Your task to perform on an android device: Open Google Maps and go to "Timeline" Image 0: 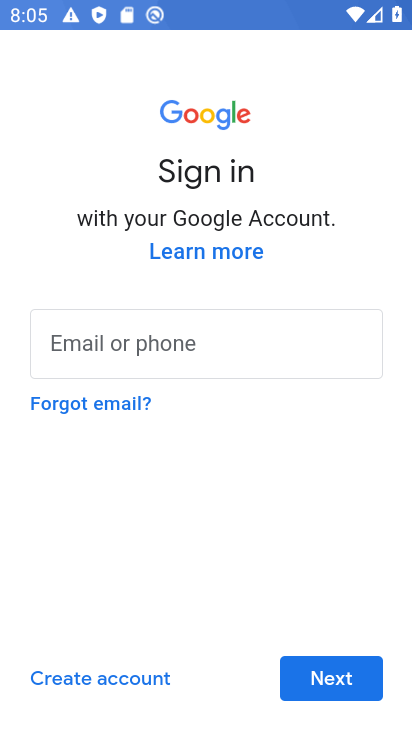
Step 0: press back button
Your task to perform on an android device: Open Google Maps and go to "Timeline" Image 1: 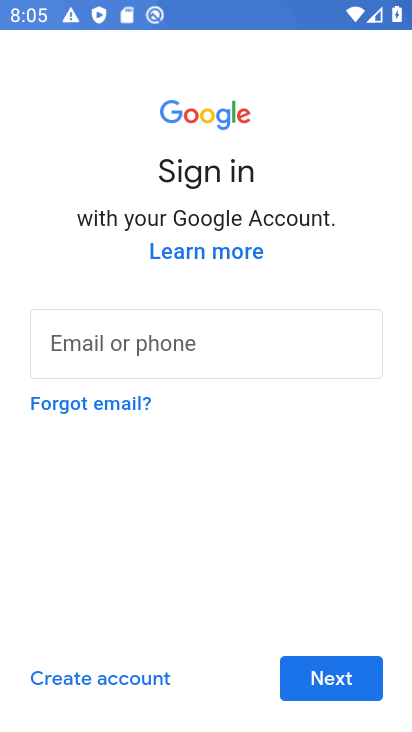
Step 1: press back button
Your task to perform on an android device: Open Google Maps and go to "Timeline" Image 2: 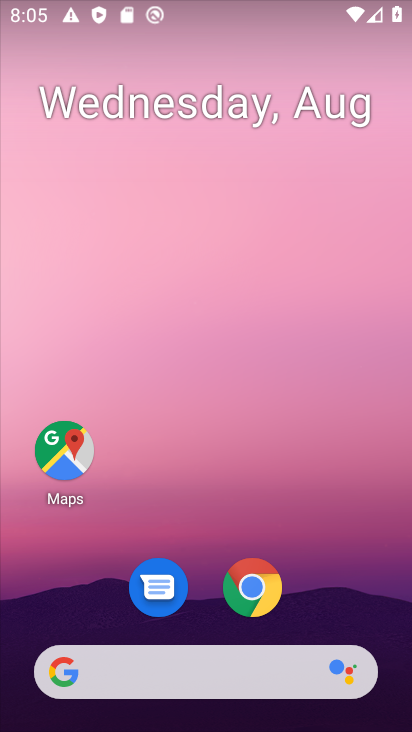
Step 2: drag from (327, 537) to (232, 19)
Your task to perform on an android device: Open Google Maps and go to "Timeline" Image 3: 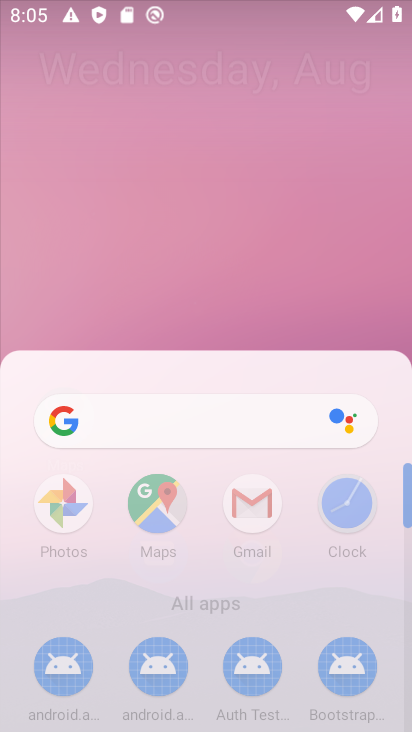
Step 3: drag from (200, 367) to (173, 185)
Your task to perform on an android device: Open Google Maps and go to "Timeline" Image 4: 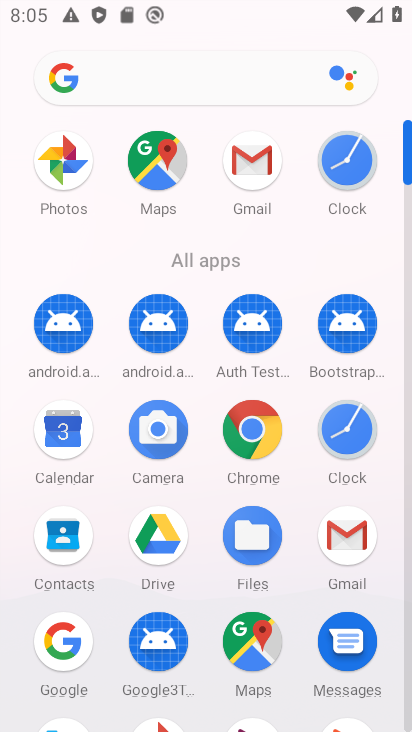
Step 4: drag from (225, 602) to (183, 434)
Your task to perform on an android device: Open Google Maps and go to "Timeline" Image 5: 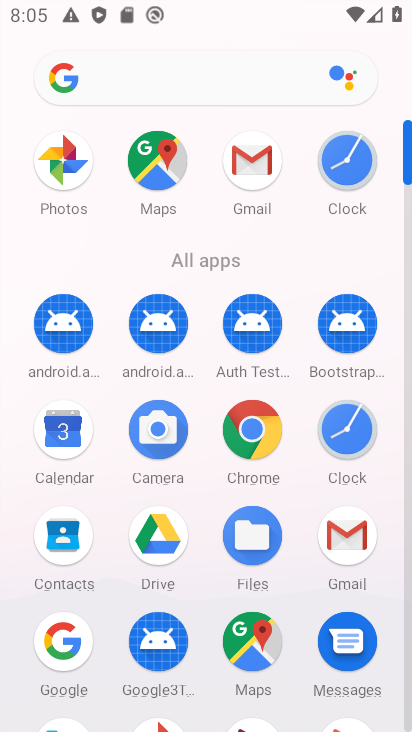
Step 5: click (158, 161)
Your task to perform on an android device: Open Google Maps and go to "Timeline" Image 6: 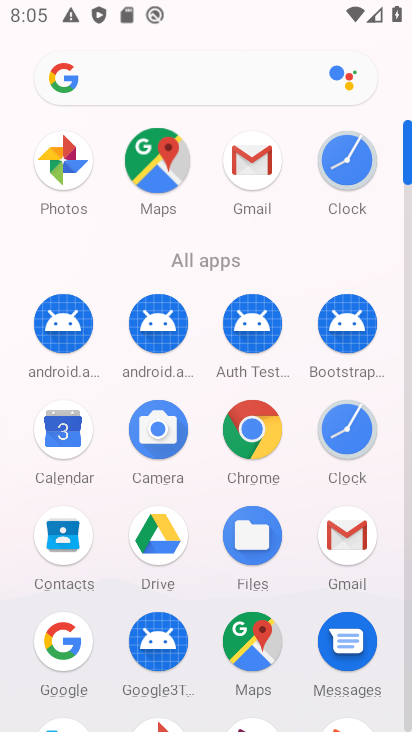
Step 6: click (158, 161)
Your task to perform on an android device: Open Google Maps and go to "Timeline" Image 7: 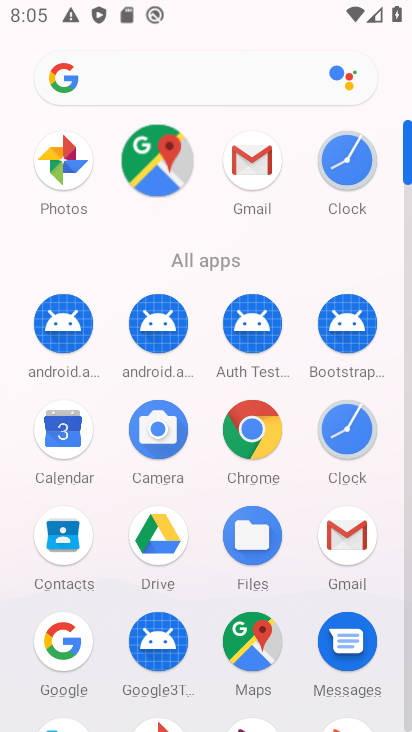
Step 7: click (156, 162)
Your task to perform on an android device: Open Google Maps and go to "Timeline" Image 8: 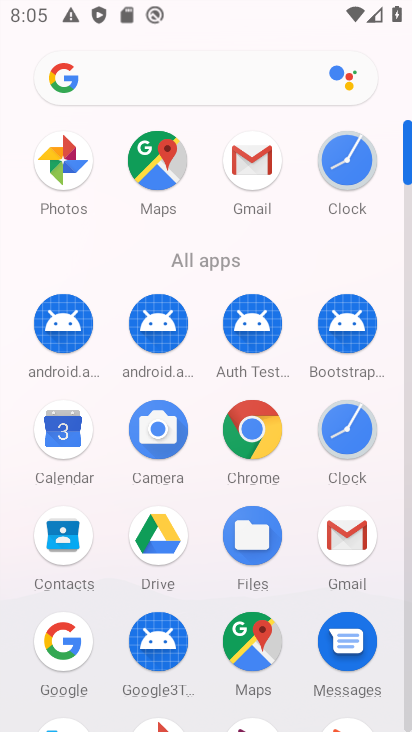
Step 8: click (156, 162)
Your task to perform on an android device: Open Google Maps and go to "Timeline" Image 9: 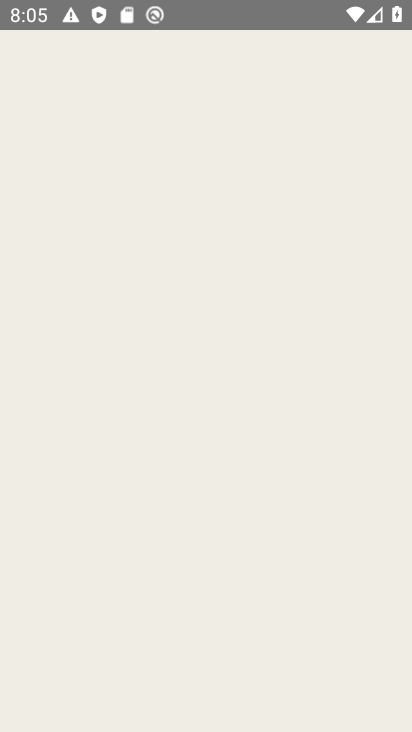
Step 9: click (208, 336)
Your task to perform on an android device: Open Google Maps and go to "Timeline" Image 10: 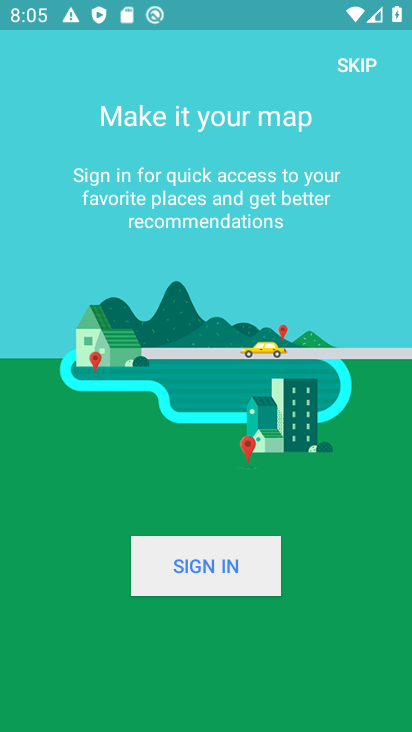
Step 10: click (334, 69)
Your task to perform on an android device: Open Google Maps and go to "Timeline" Image 11: 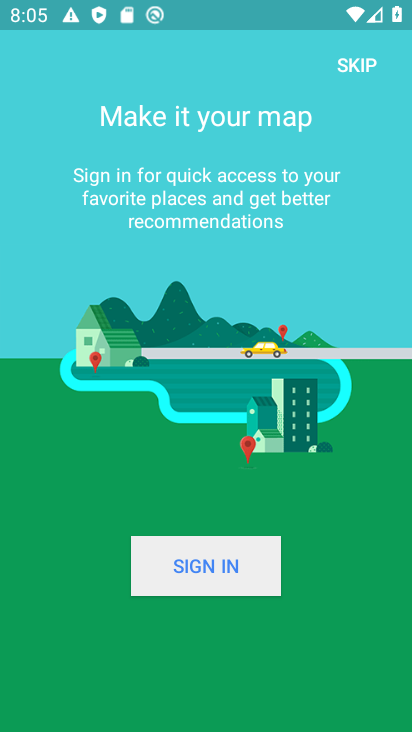
Step 11: click (345, 68)
Your task to perform on an android device: Open Google Maps and go to "Timeline" Image 12: 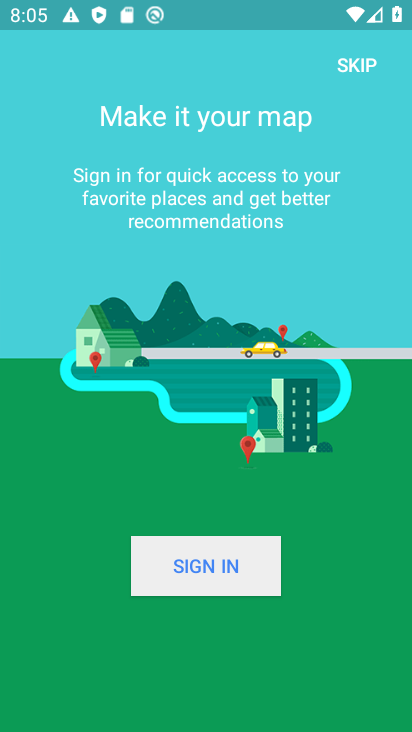
Step 12: click (345, 68)
Your task to perform on an android device: Open Google Maps and go to "Timeline" Image 13: 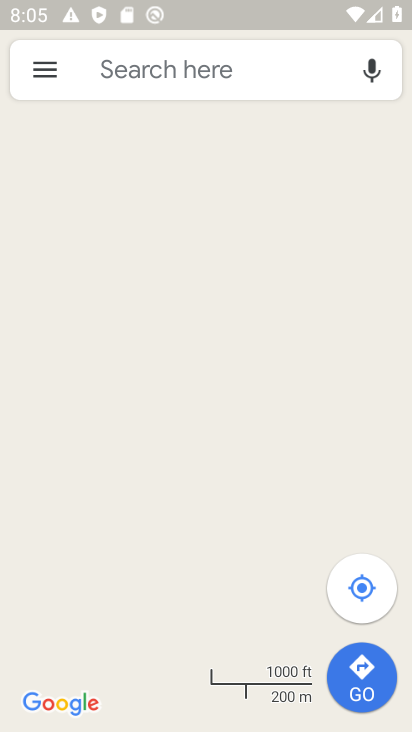
Step 13: click (345, 68)
Your task to perform on an android device: Open Google Maps and go to "Timeline" Image 14: 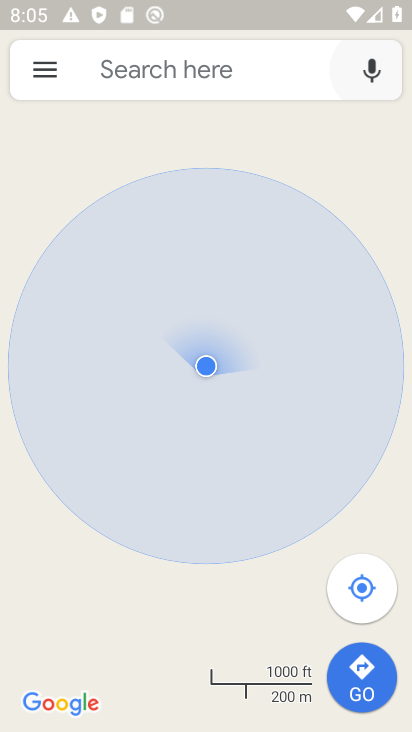
Step 14: click (41, 69)
Your task to perform on an android device: Open Google Maps and go to "Timeline" Image 15: 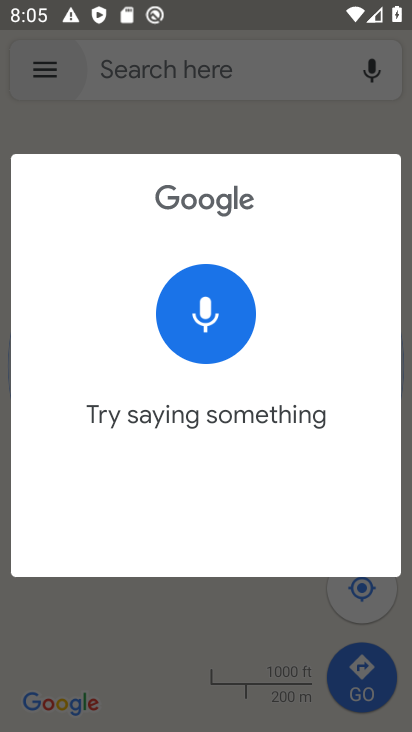
Step 15: click (42, 73)
Your task to perform on an android device: Open Google Maps and go to "Timeline" Image 16: 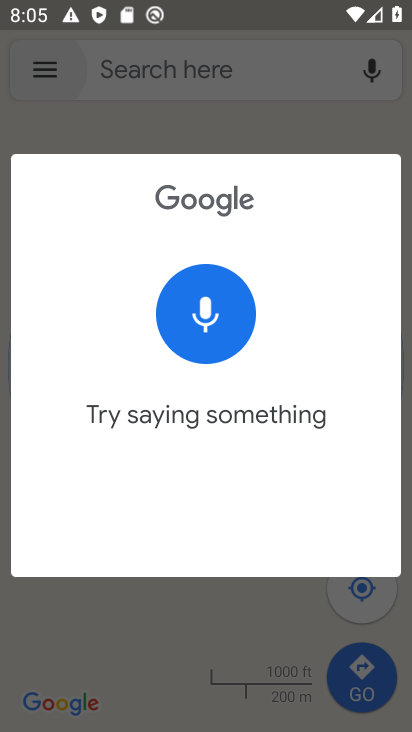
Step 16: click (43, 75)
Your task to perform on an android device: Open Google Maps and go to "Timeline" Image 17: 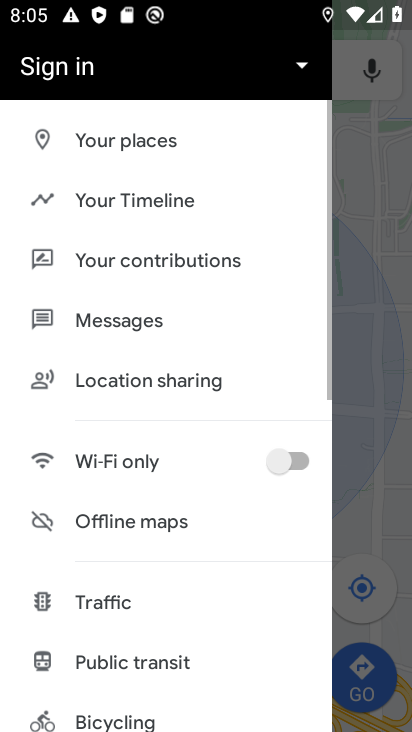
Step 17: click (150, 201)
Your task to perform on an android device: Open Google Maps and go to "Timeline" Image 18: 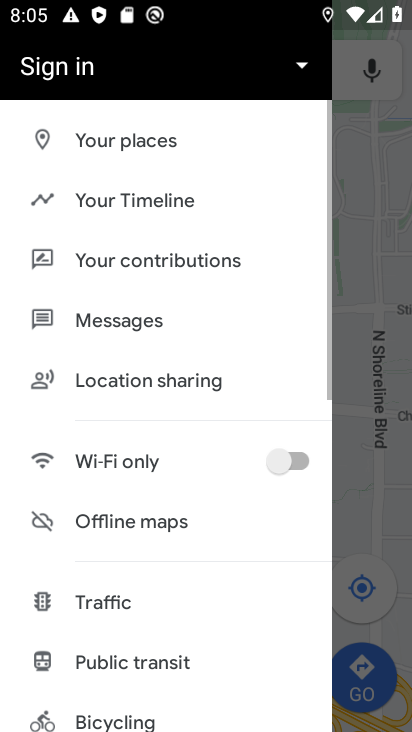
Step 18: click (149, 202)
Your task to perform on an android device: Open Google Maps and go to "Timeline" Image 19: 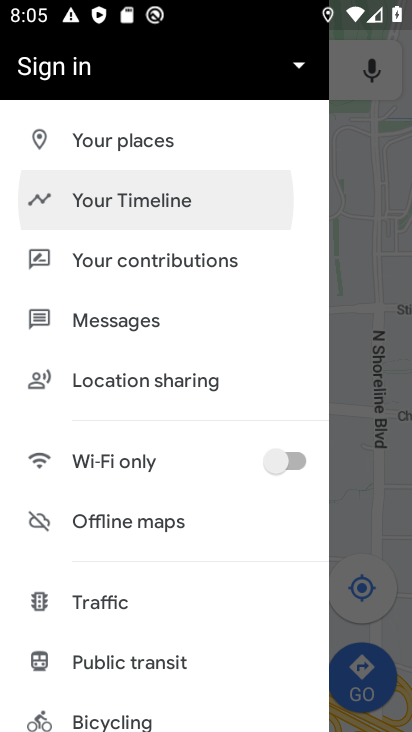
Step 19: click (149, 202)
Your task to perform on an android device: Open Google Maps and go to "Timeline" Image 20: 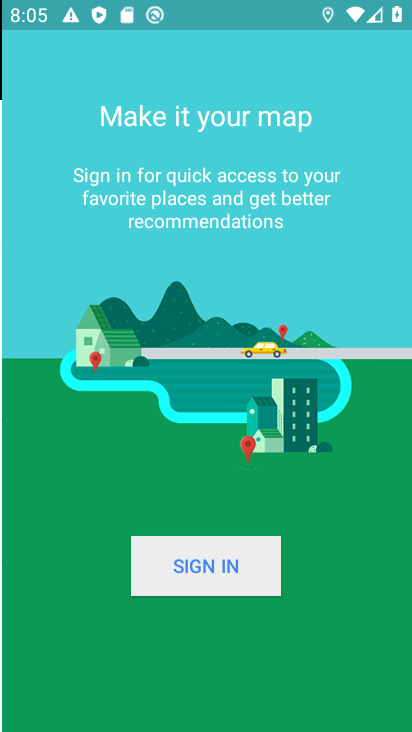
Step 20: click (149, 203)
Your task to perform on an android device: Open Google Maps and go to "Timeline" Image 21: 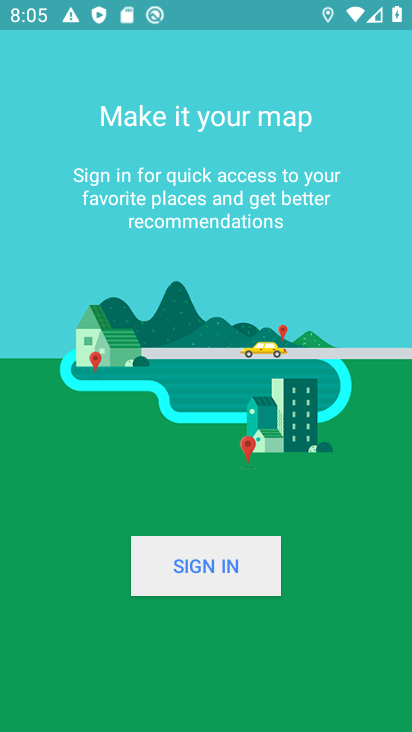
Step 21: click (379, 55)
Your task to perform on an android device: Open Google Maps and go to "Timeline" Image 22: 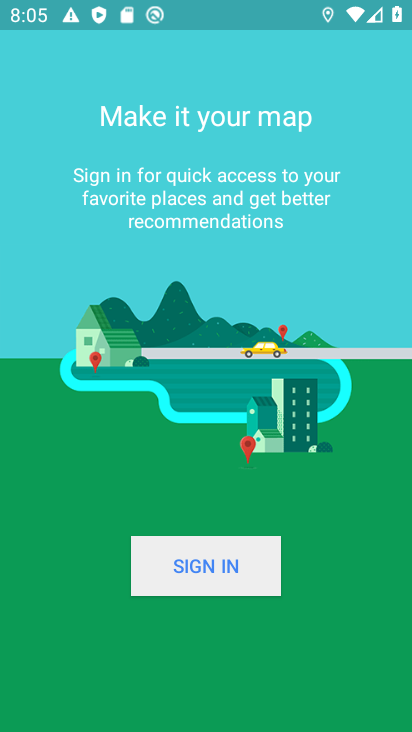
Step 22: click (379, 55)
Your task to perform on an android device: Open Google Maps and go to "Timeline" Image 23: 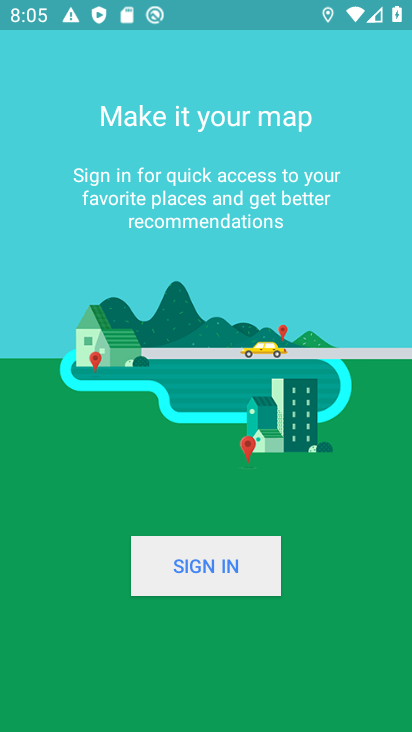
Step 23: click (379, 56)
Your task to perform on an android device: Open Google Maps and go to "Timeline" Image 24: 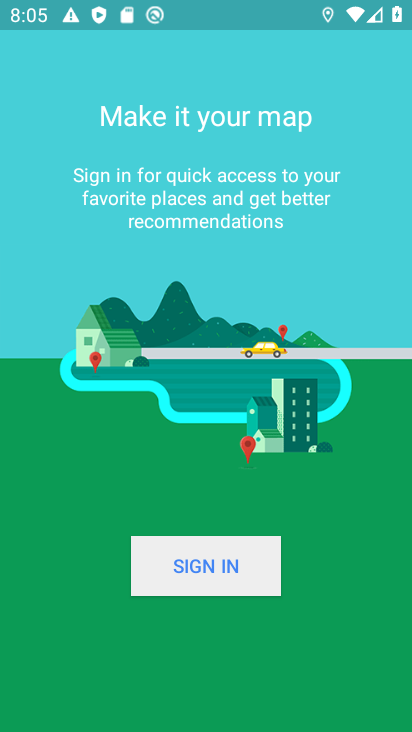
Step 24: click (379, 60)
Your task to perform on an android device: Open Google Maps and go to "Timeline" Image 25: 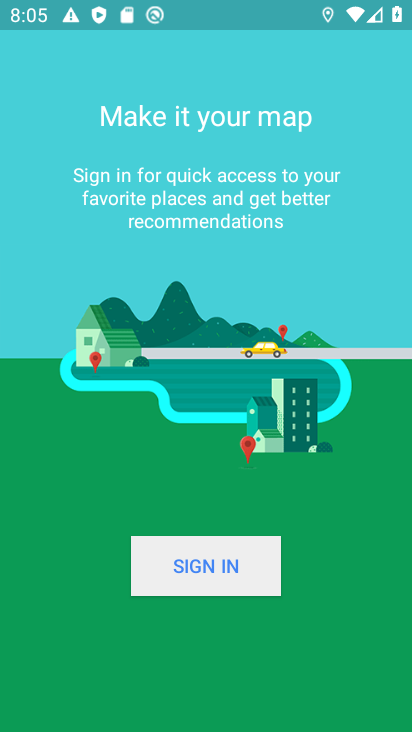
Step 25: click (379, 60)
Your task to perform on an android device: Open Google Maps and go to "Timeline" Image 26: 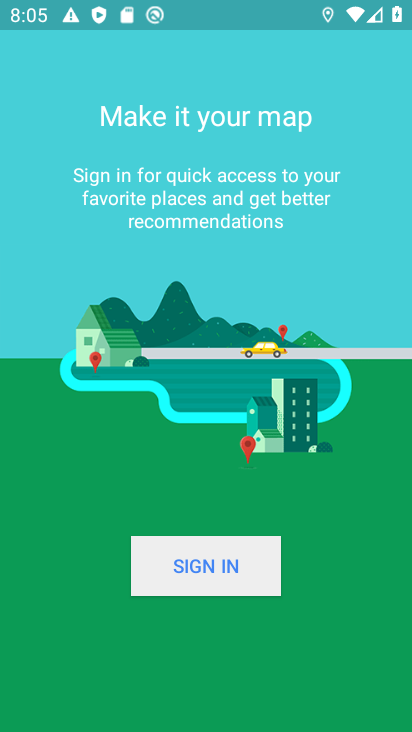
Step 26: click (379, 60)
Your task to perform on an android device: Open Google Maps and go to "Timeline" Image 27: 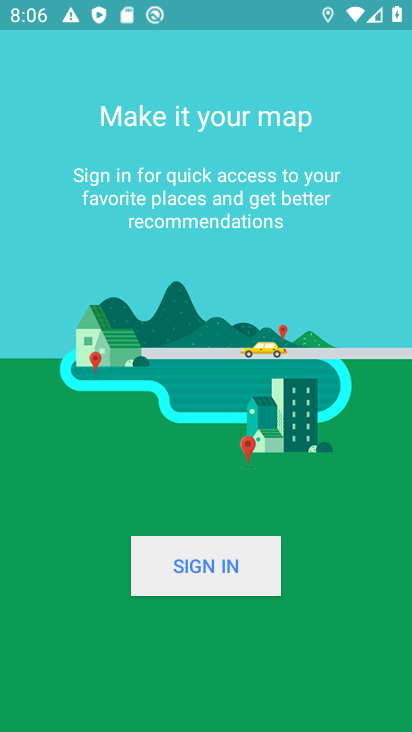
Step 27: task complete